Your task to perform on an android device: set the stopwatch Image 0: 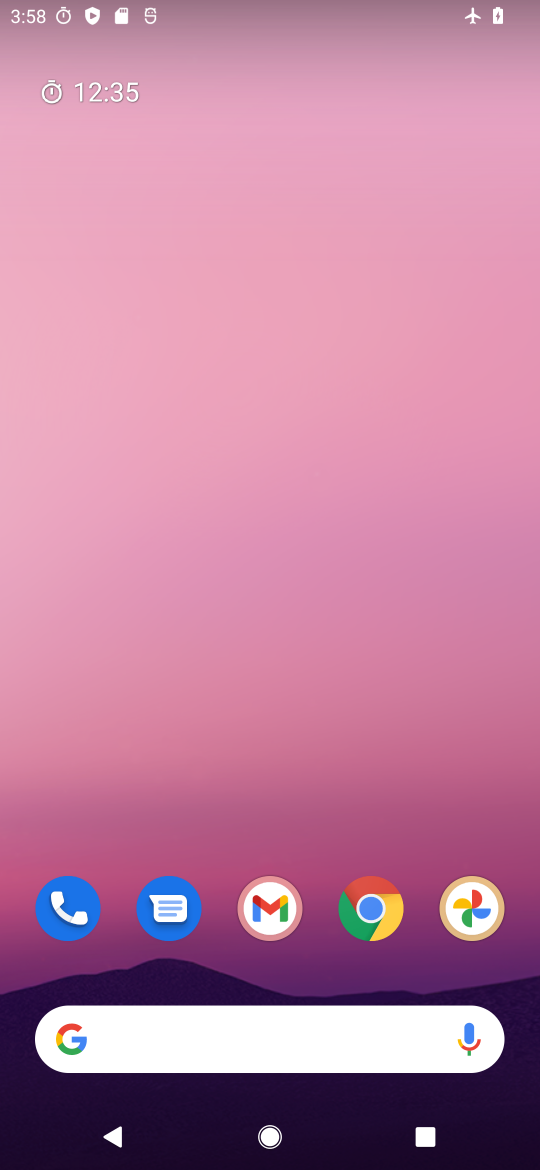
Step 0: drag from (337, 836) to (343, 59)
Your task to perform on an android device: set the stopwatch Image 1: 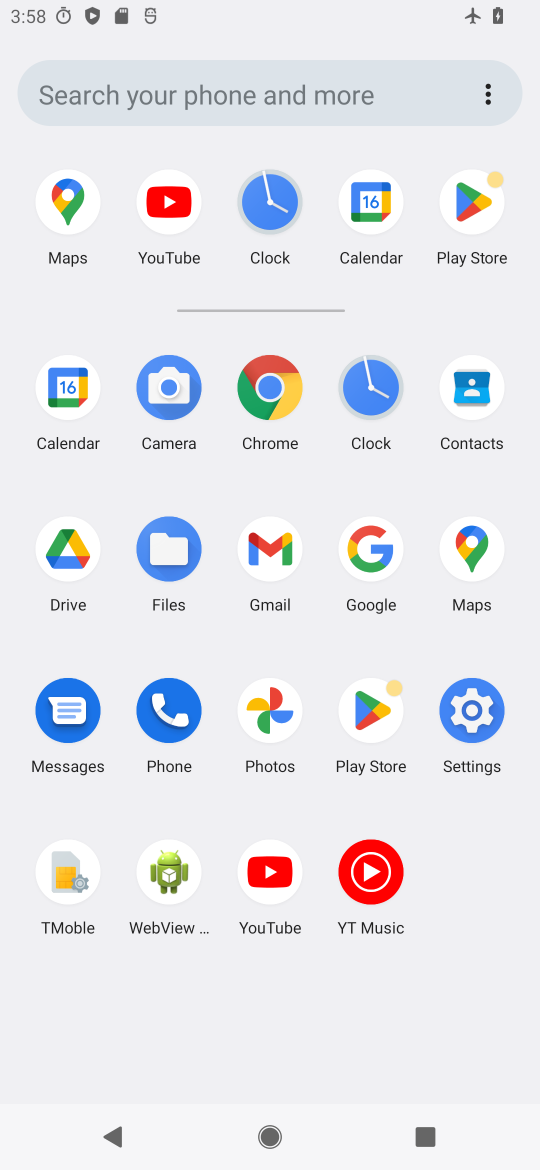
Step 1: click (368, 373)
Your task to perform on an android device: set the stopwatch Image 2: 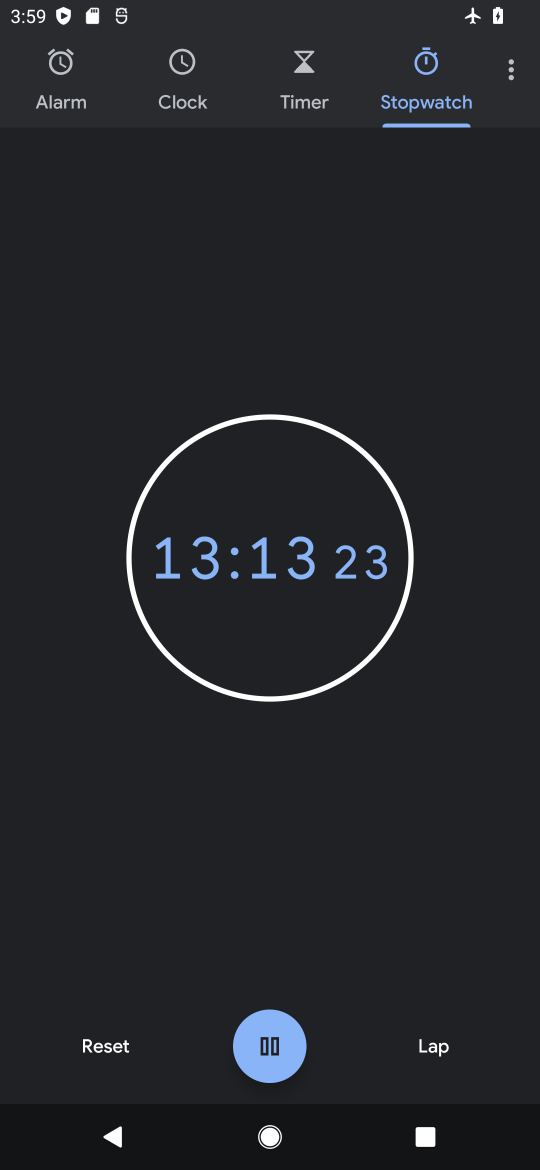
Step 2: click (109, 1066)
Your task to perform on an android device: set the stopwatch Image 3: 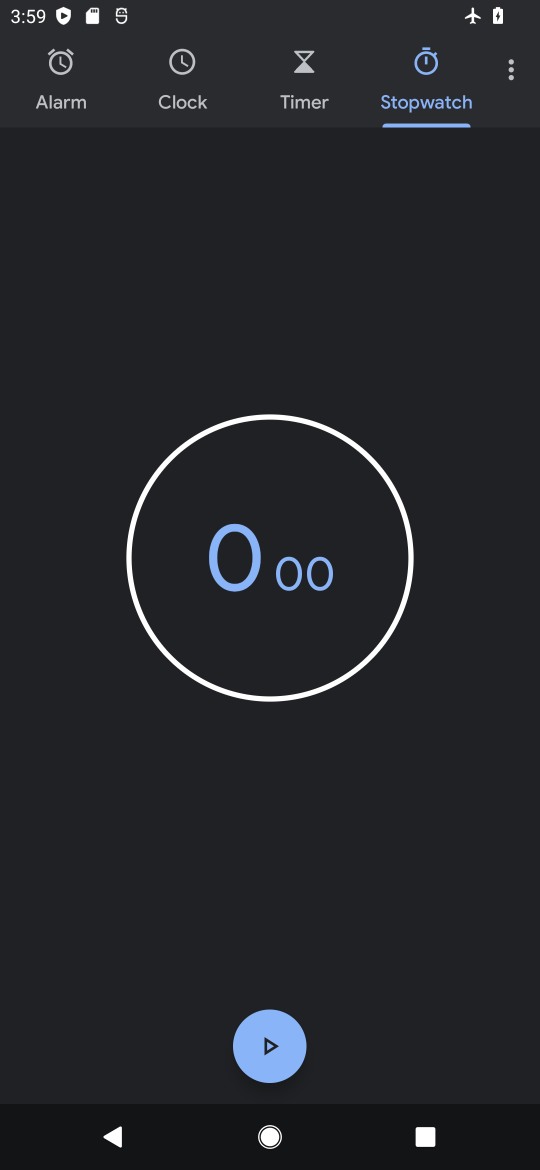
Step 3: task complete